Your task to perform on an android device: Open the calendar and show me this week's events? Image 0: 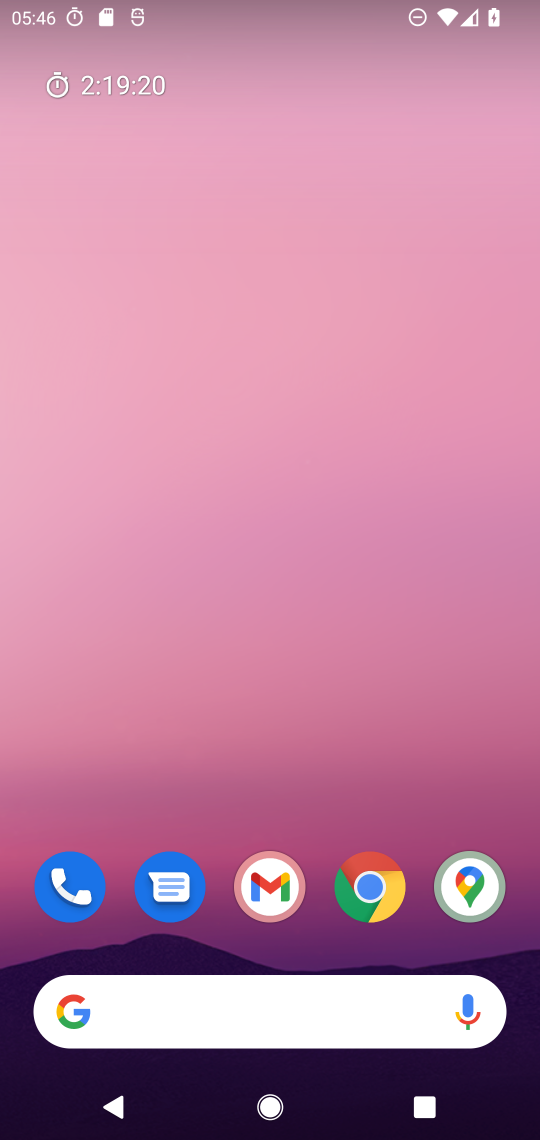
Step 0: press home button
Your task to perform on an android device: Open the calendar and show me this week's events? Image 1: 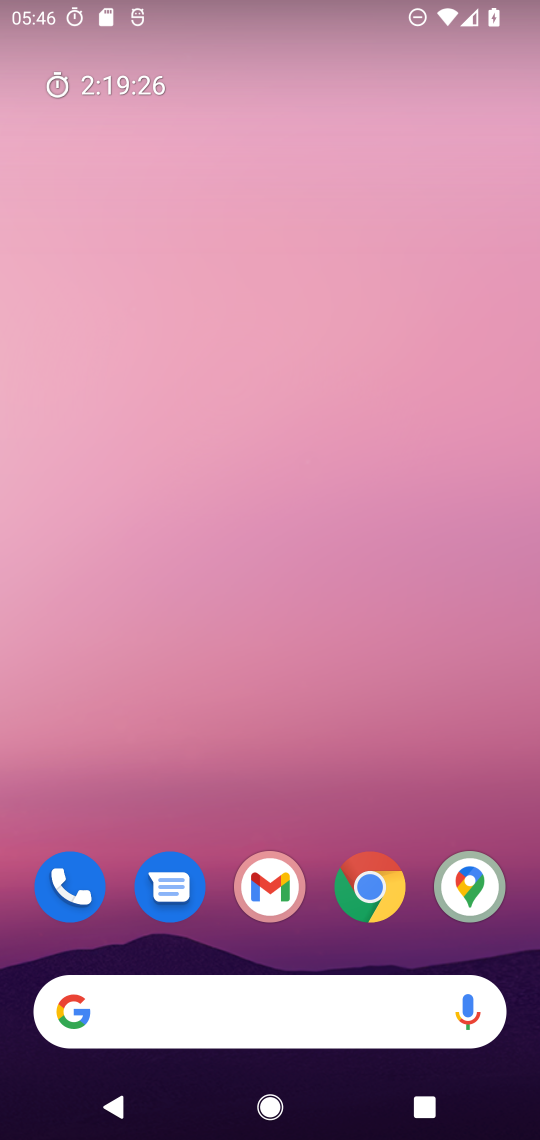
Step 1: drag from (393, 764) to (405, 365)
Your task to perform on an android device: Open the calendar and show me this week's events? Image 2: 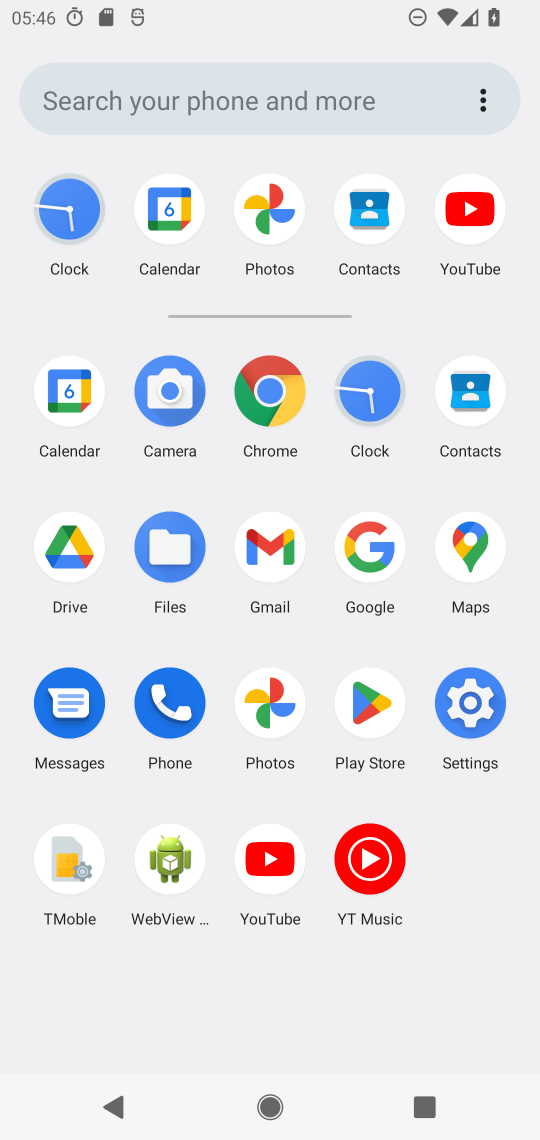
Step 2: click (73, 394)
Your task to perform on an android device: Open the calendar and show me this week's events? Image 3: 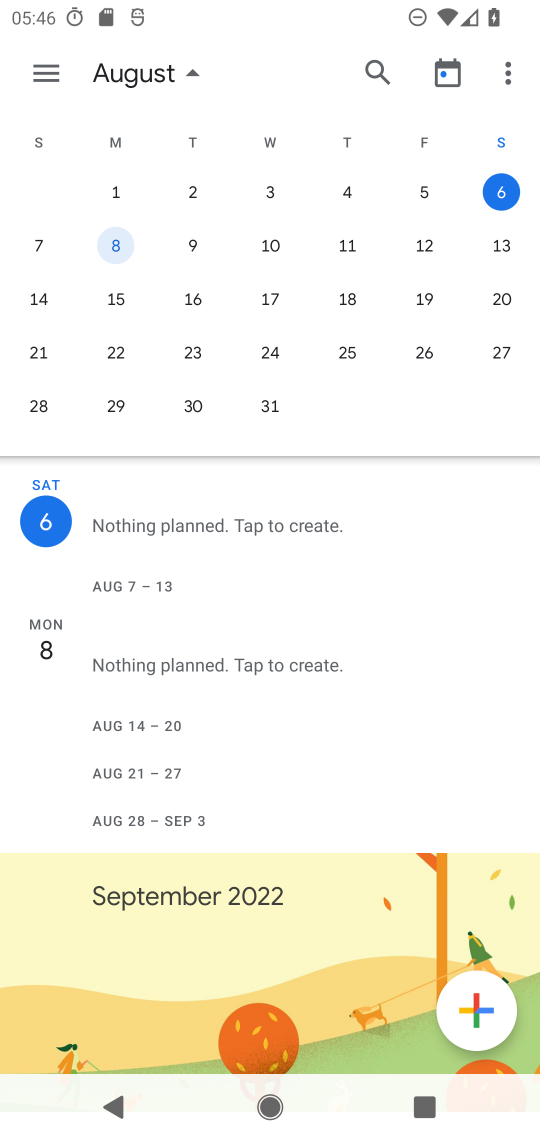
Step 3: task complete